Your task to perform on an android device: delete the emails in spam in the gmail app Image 0: 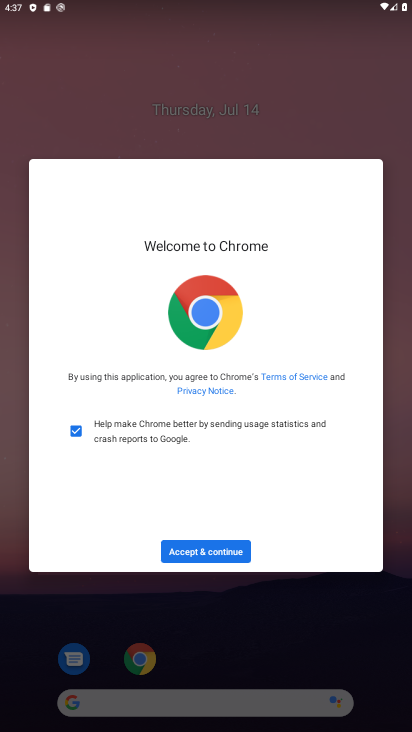
Step 0: press home button
Your task to perform on an android device: delete the emails in spam in the gmail app Image 1: 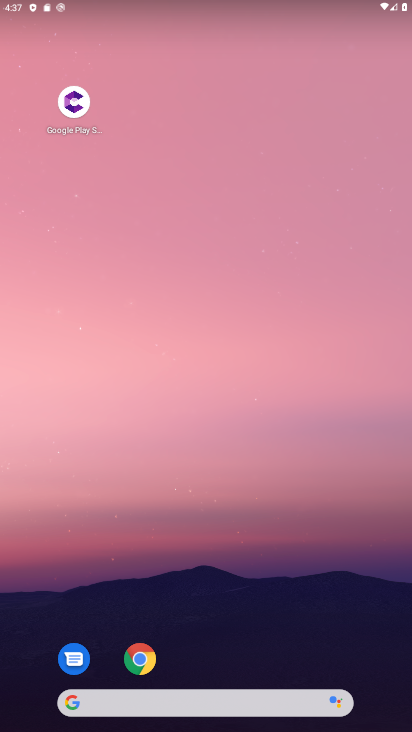
Step 1: drag from (226, 611) to (280, 165)
Your task to perform on an android device: delete the emails in spam in the gmail app Image 2: 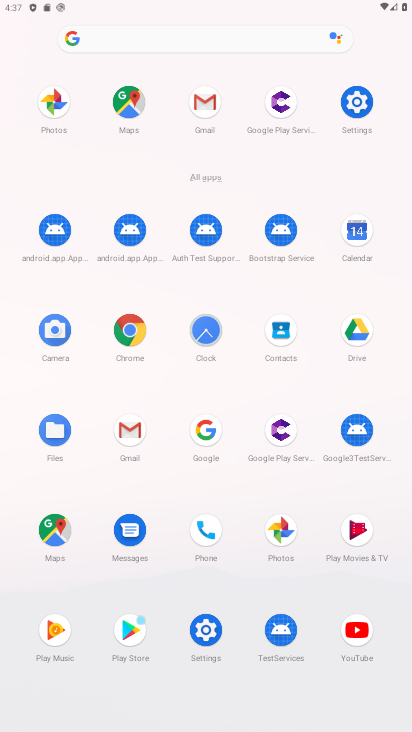
Step 2: click (137, 432)
Your task to perform on an android device: delete the emails in spam in the gmail app Image 3: 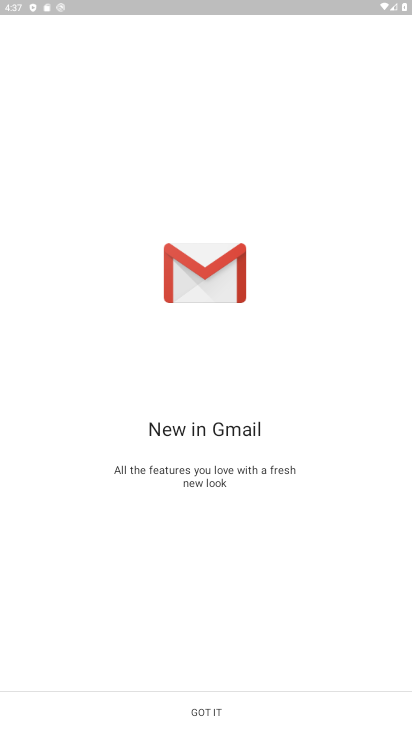
Step 3: click (218, 720)
Your task to perform on an android device: delete the emails in spam in the gmail app Image 4: 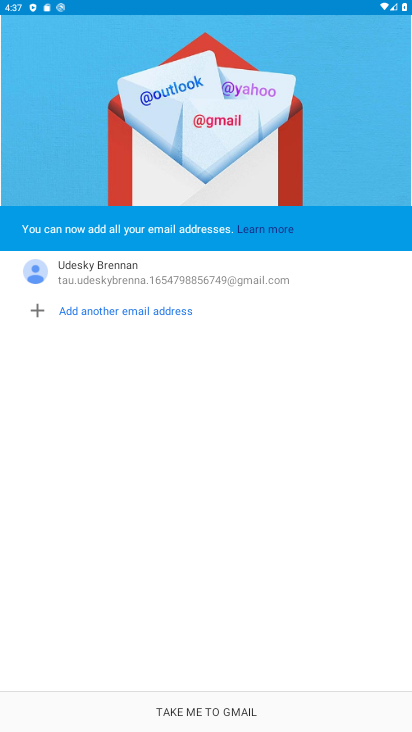
Step 4: click (237, 719)
Your task to perform on an android device: delete the emails in spam in the gmail app Image 5: 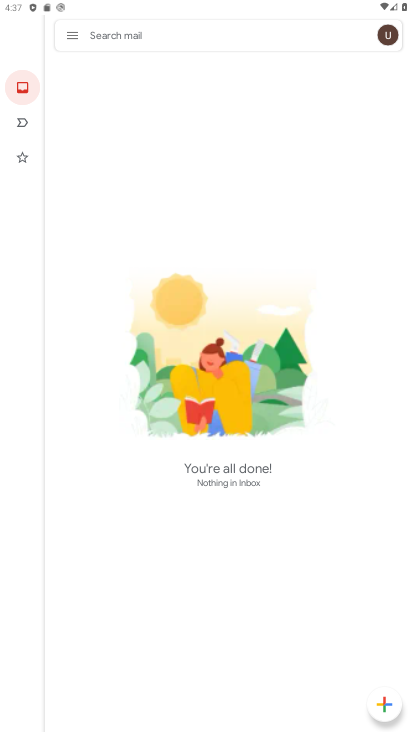
Step 5: click (69, 41)
Your task to perform on an android device: delete the emails in spam in the gmail app Image 6: 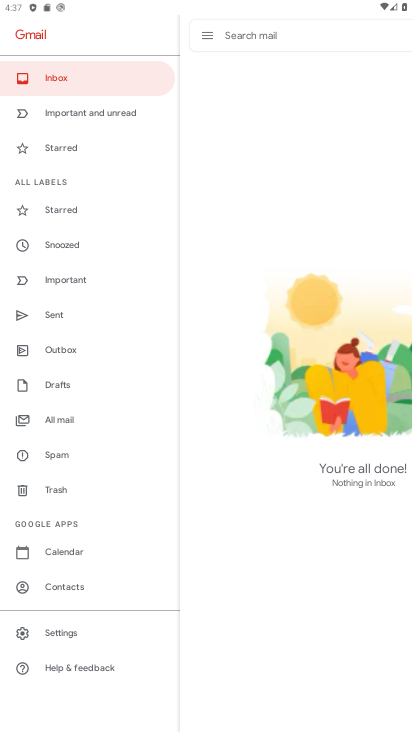
Step 6: click (71, 460)
Your task to perform on an android device: delete the emails in spam in the gmail app Image 7: 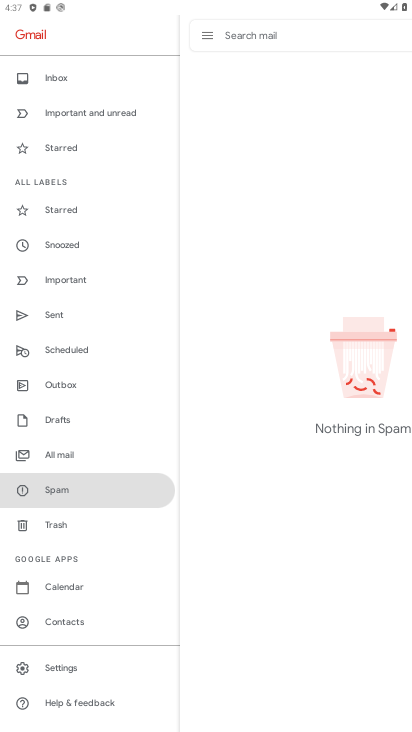
Step 7: task complete